Your task to perform on an android device: change text size in settings app Image 0: 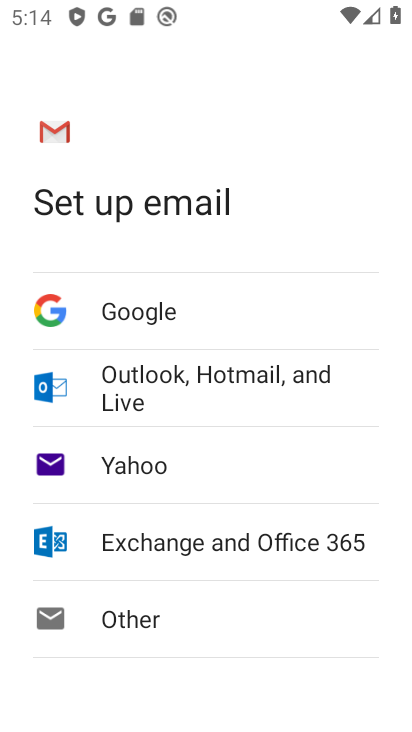
Step 0: press back button
Your task to perform on an android device: change text size in settings app Image 1: 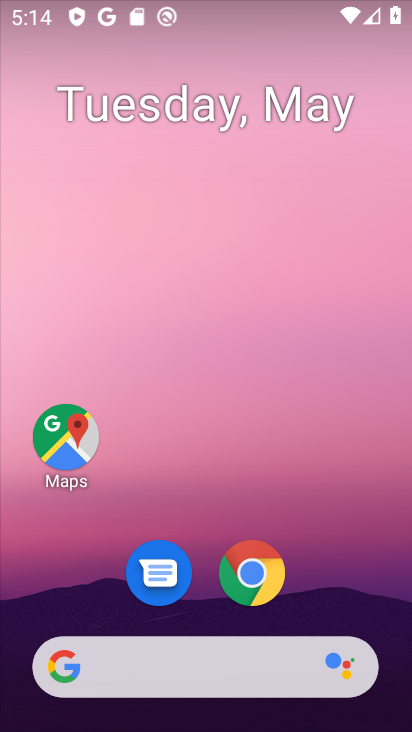
Step 1: drag from (303, 565) to (307, 3)
Your task to perform on an android device: change text size in settings app Image 2: 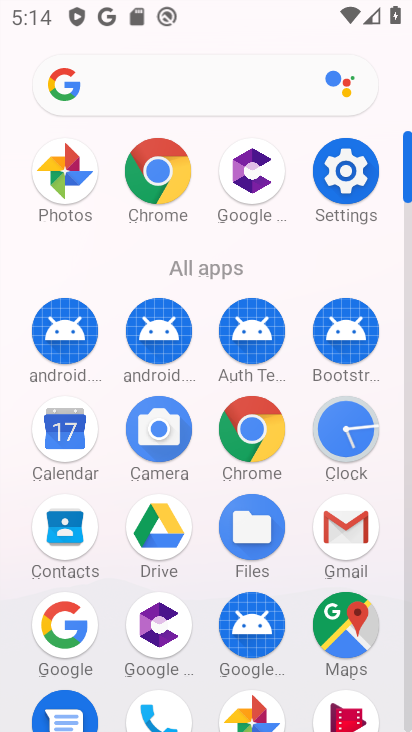
Step 2: click (345, 167)
Your task to perform on an android device: change text size in settings app Image 3: 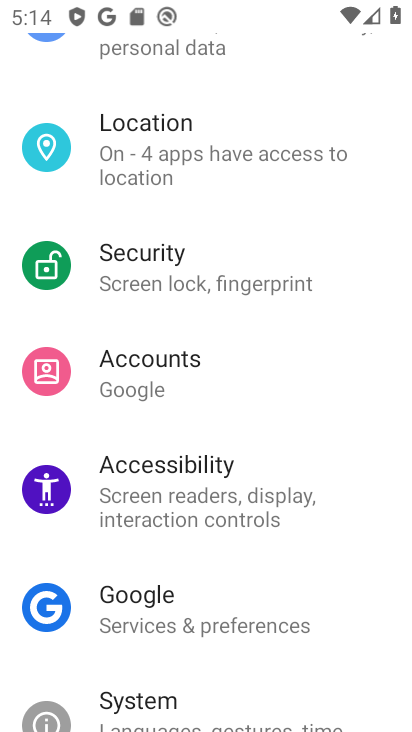
Step 3: drag from (273, 552) to (302, 156)
Your task to perform on an android device: change text size in settings app Image 4: 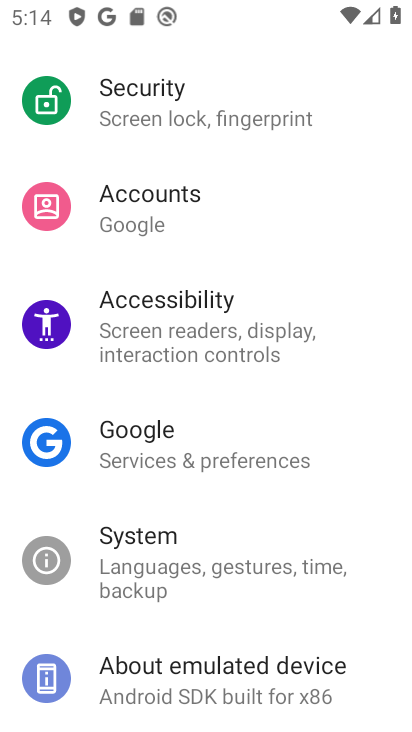
Step 4: drag from (226, 173) to (193, 601)
Your task to perform on an android device: change text size in settings app Image 5: 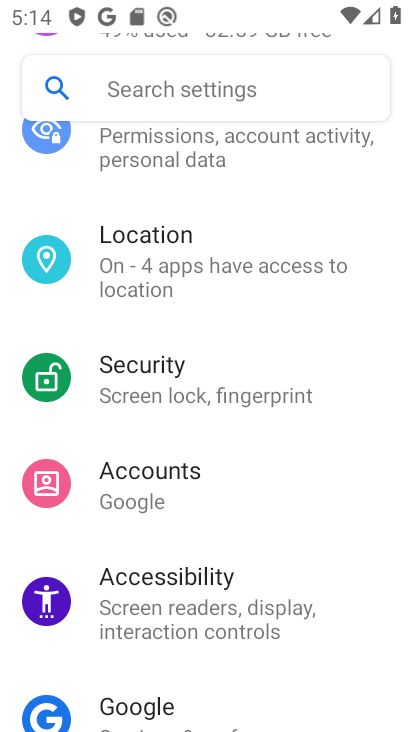
Step 5: drag from (228, 195) to (231, 568)
Your task to perform on an android device: change text size in settings app Image 6: 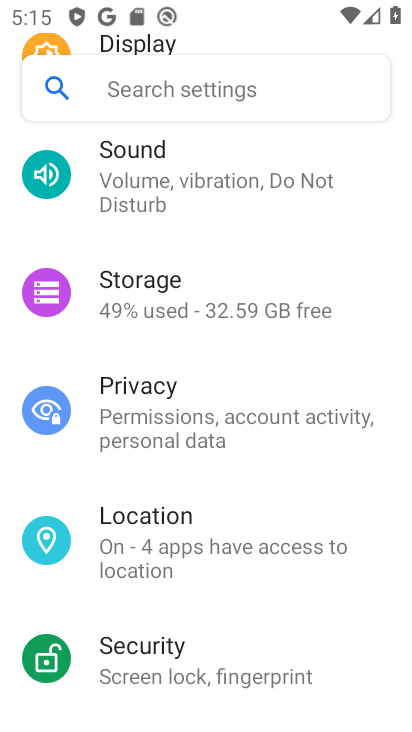
Step 6: drag from (246, 240) to (248, 624)
Your task to perform on an android device: change text size in settings app Image 7: 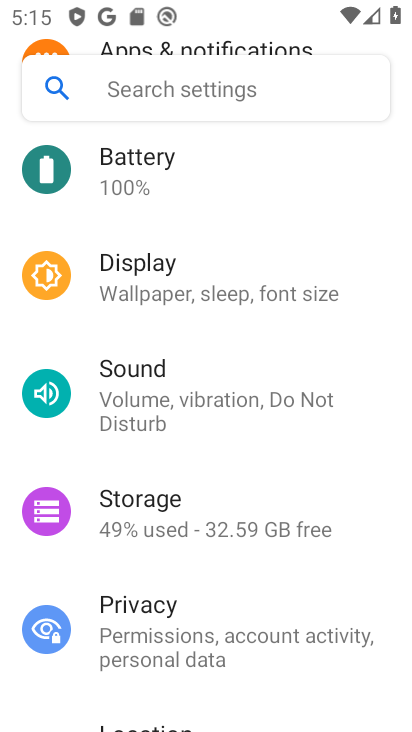
Step 7: click (216, 275)
Your task to perform on an android device: change text size in settings app Image 8: 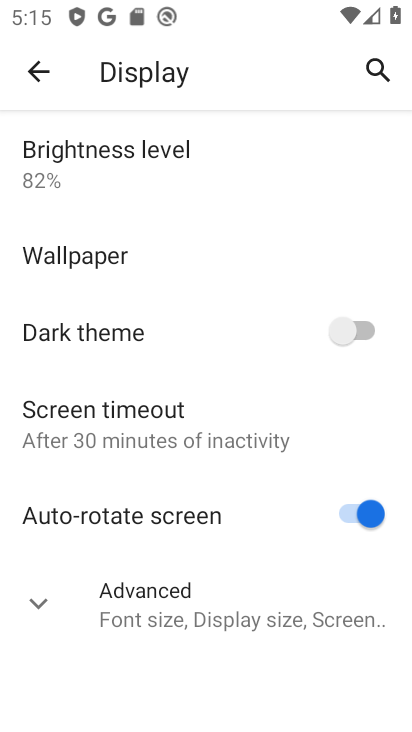
Step 8: click (21, 602)
Your task to perform on an android device: change text size in settings app Image 9: 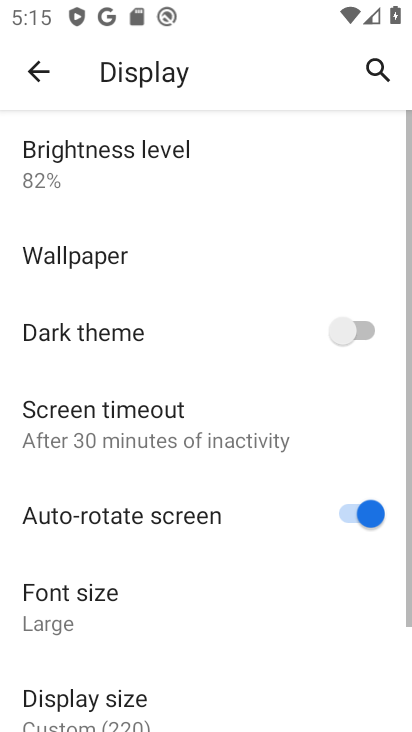
Step 9: drag from (195, 621) to (222, 157)
Your task to perform on an android device: change text size in settings app Image 10: 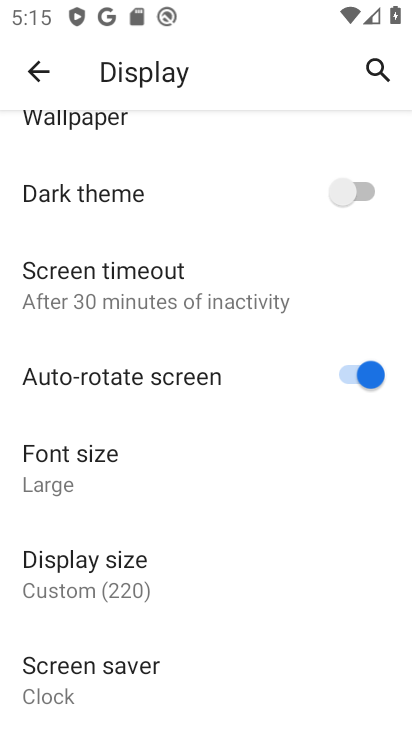
Step 10: click (107, 475)
Your task to perform on an android device: change text size in settings app Image 11: 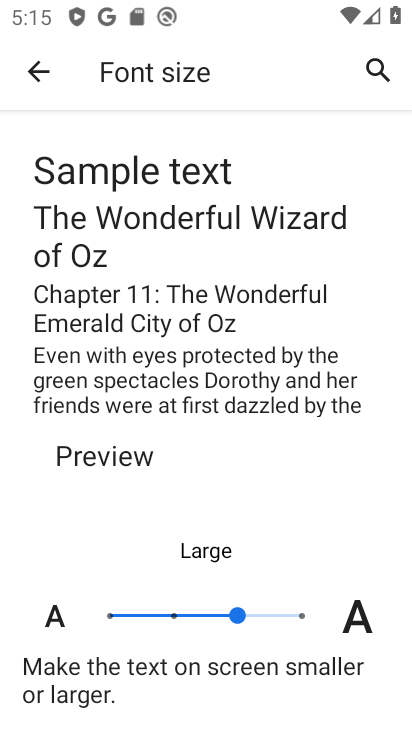
Step 11: click (297, 613)
Your task to perform on an android device: change text size in settings app Image 12: 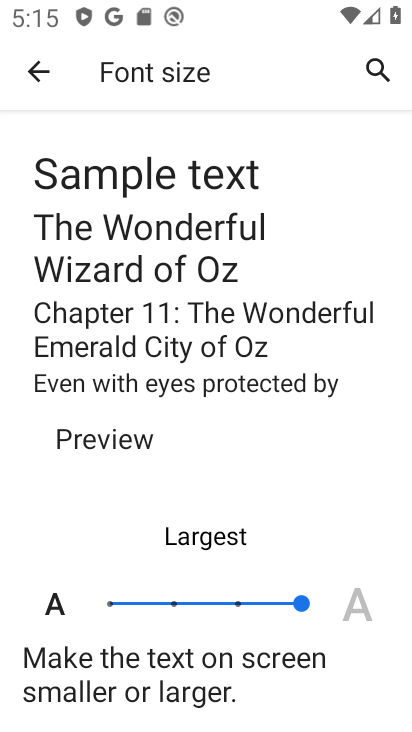
Step 12: task complete